Your task to perform on an android device: Empty the shopping cart on amazon.com. Add usb-a to the cart on amazon.com Image 0: 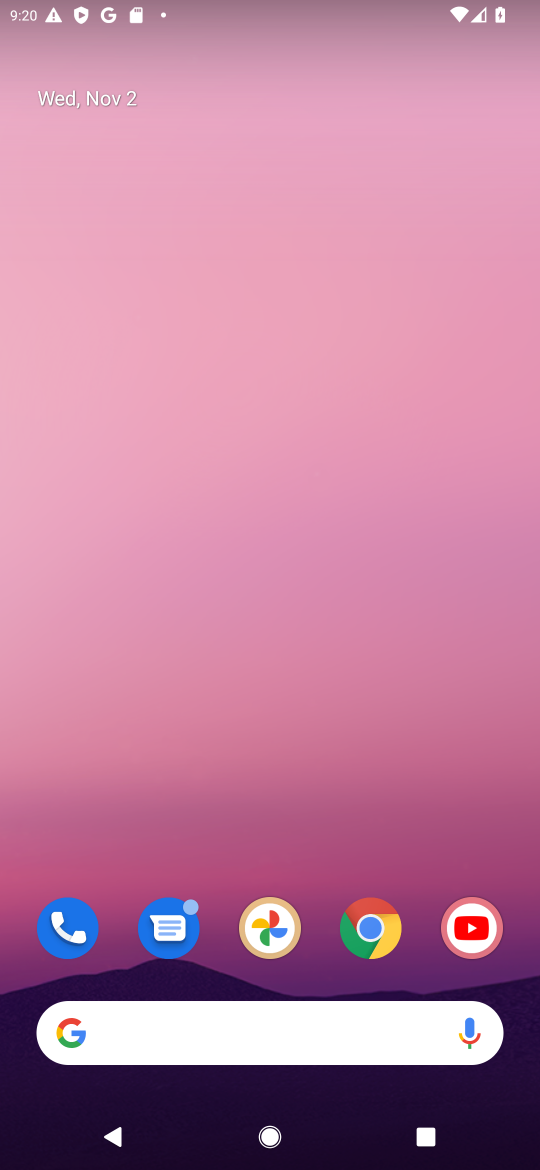
Step 0: click (379, 938)
Your task to perform on an android device: Empty the shopping cart on amazon.com. Add usb-a to the cart on amazon.com Image 1: 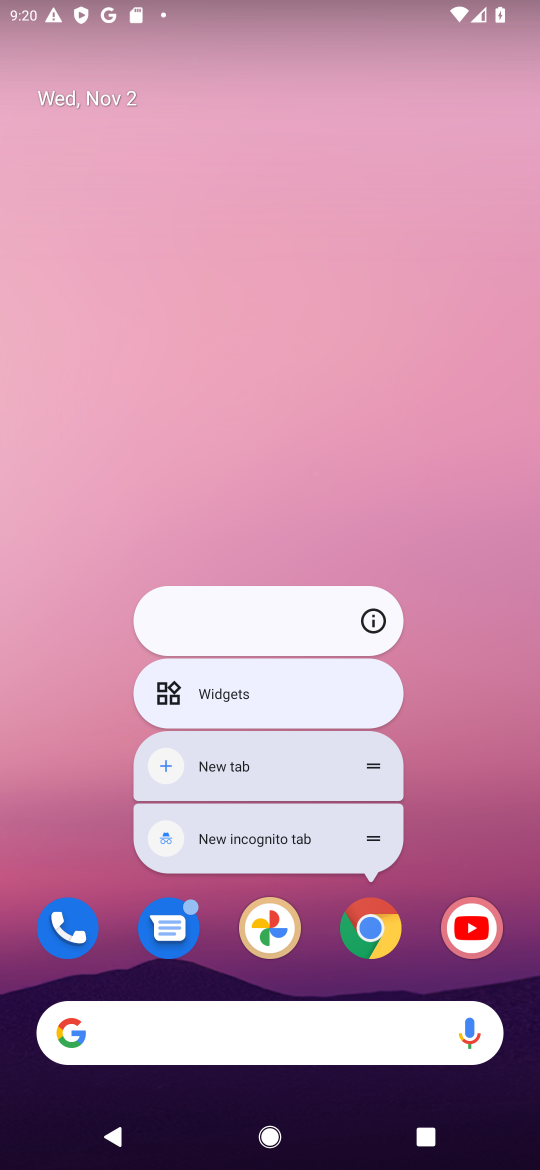
Step 1: click (373, 931)
Your task to perform on an android device: Empty the shopping cart on amazon.com. Add usb-a to the cart on amazon.com Image 2: 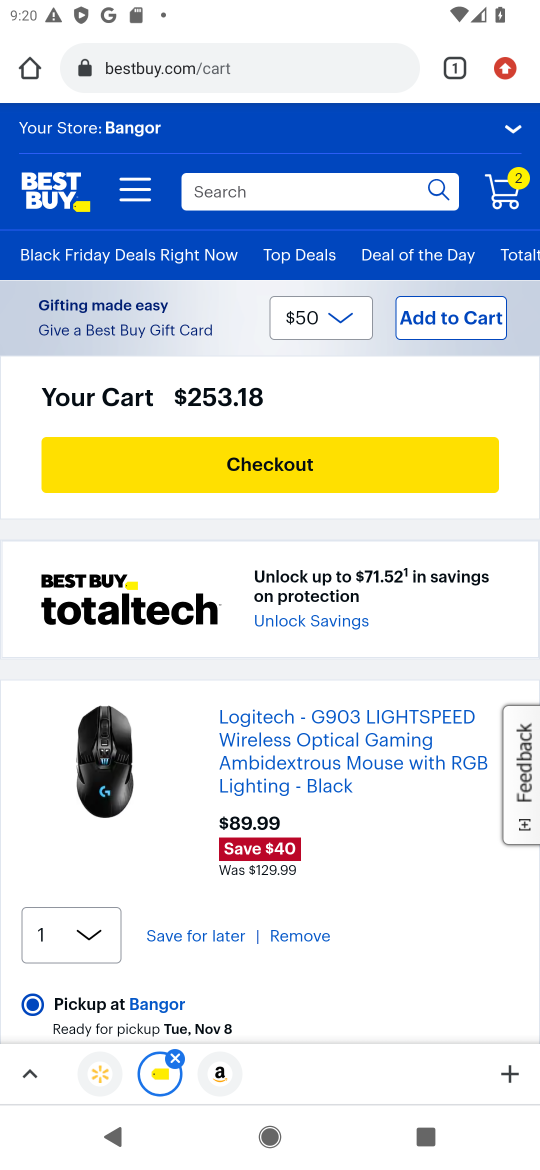
Step 2: click (220, 63)
Your task to perform on an android device: Empty the shopping cart on amazon.com. Add usb-a to the cart on amazon.com Image 3: 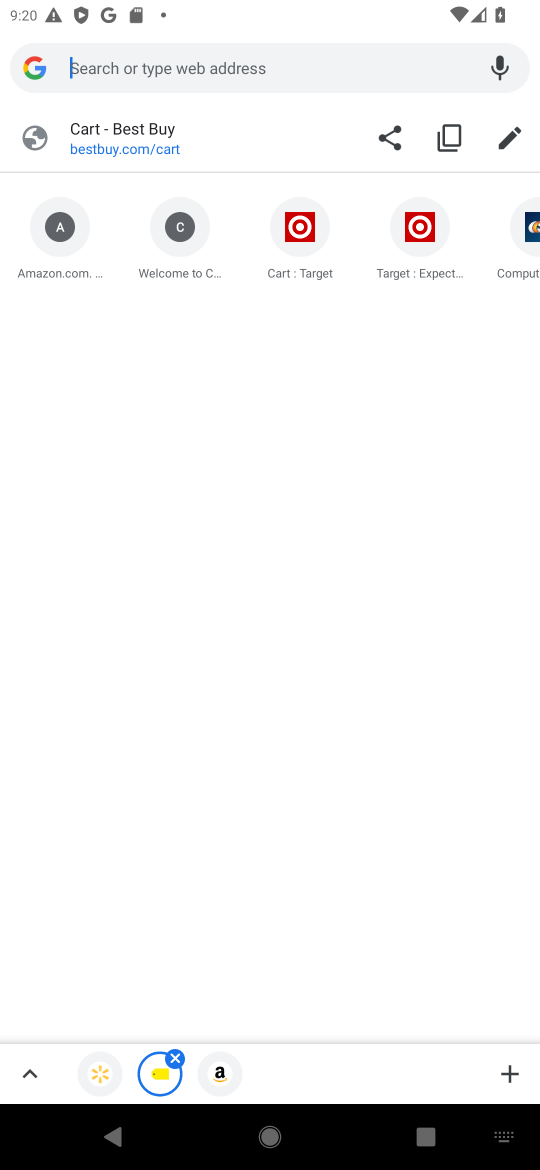
Step 3: type "amazon.com"
Your task to perform on an android device: Empty the shopping cart on amazon.com. Add usb-a to the cart on amazon.com Image 4: 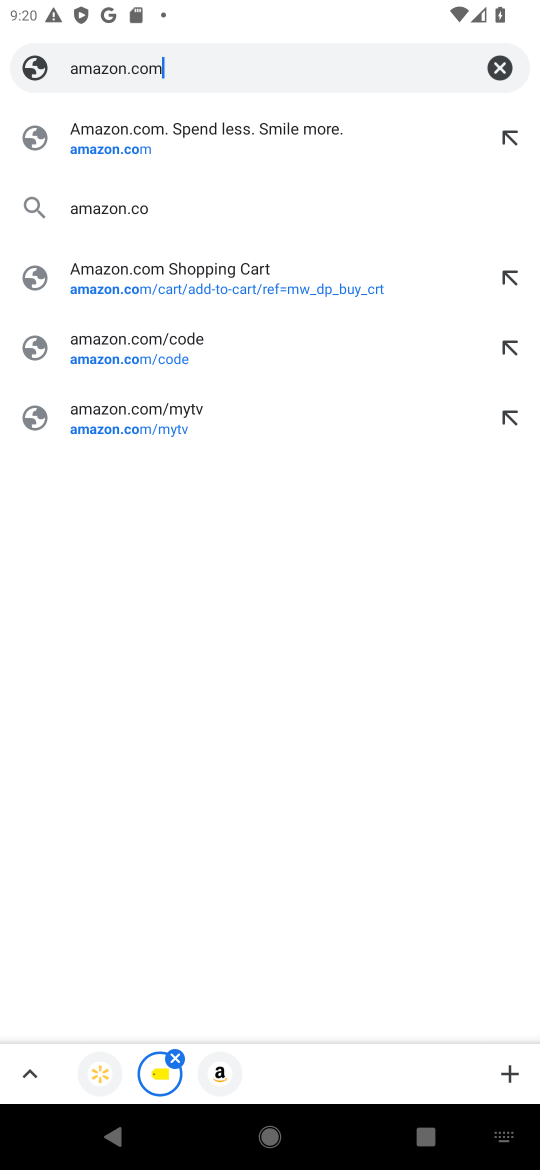
Step 4: type ""
Your task to perform on an android device: Empty the shopping cart on amazon.com. Add usb-a to the cart on amazon.com Image 5: 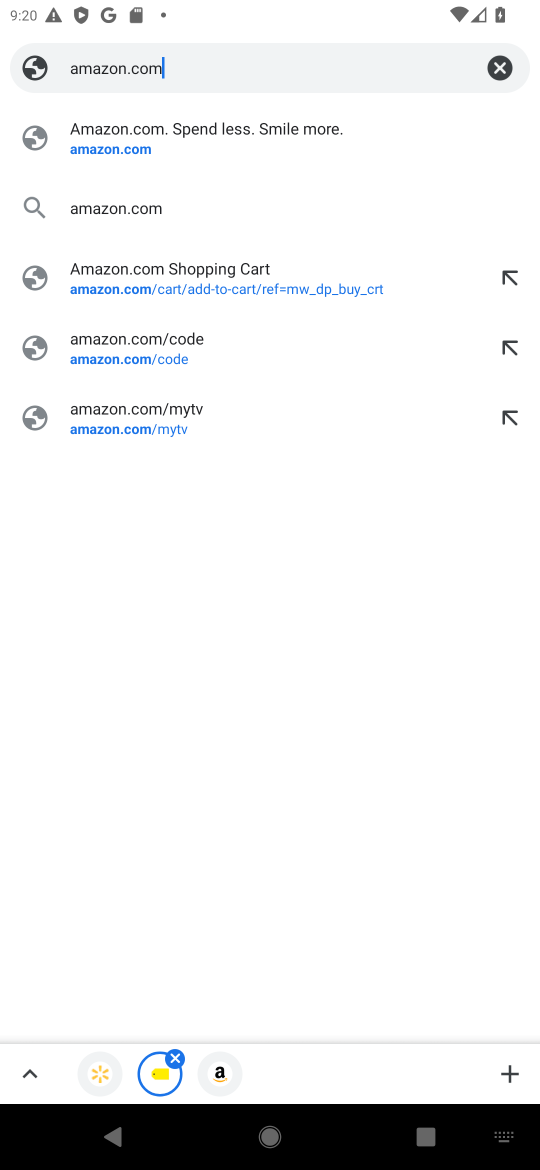
Step 5: click (233, 142)
Your task to perform on an android device: Empty the shopping cart on amazon.com. Add usb-a to the cart on amazon.com Image 6: 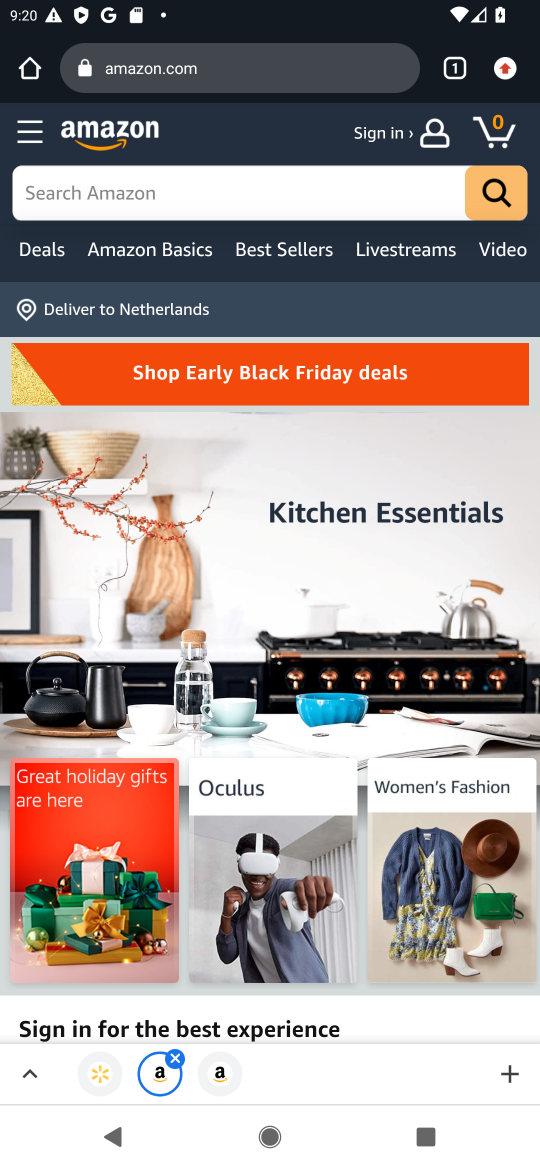
Step 6: click (314, 222)
Your task to perform on an android device: Empty the shopping cart on amazon.com. Add usb-a to the cart on amazon.com Image 7: 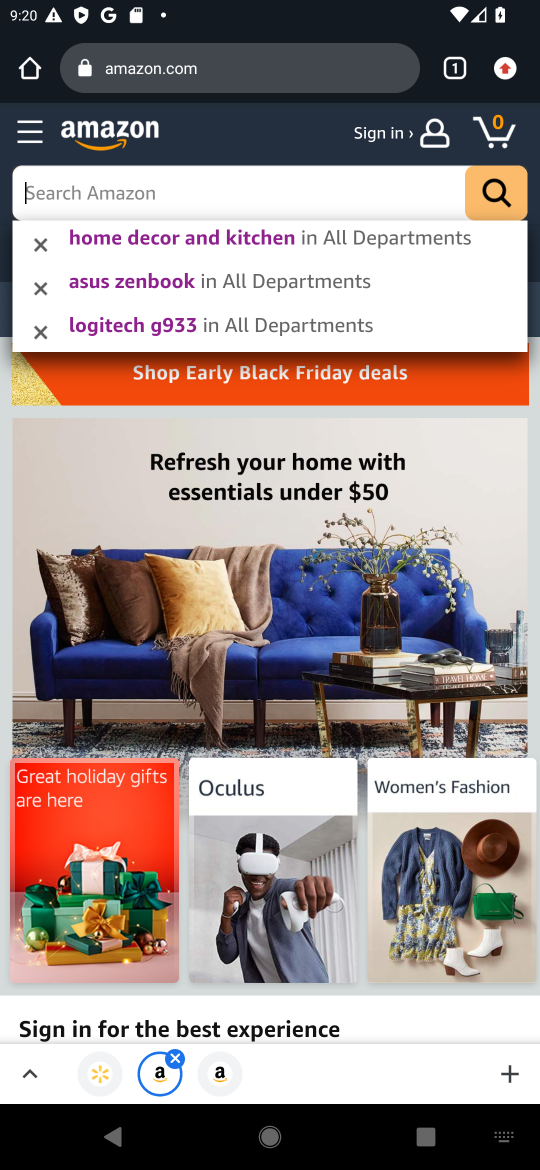
Step 7: type "usb-a "
Your task to perform on an android device: Empty the shopping cart on amazon.com. Add usb-a to the cart on amazon.com Image 8: 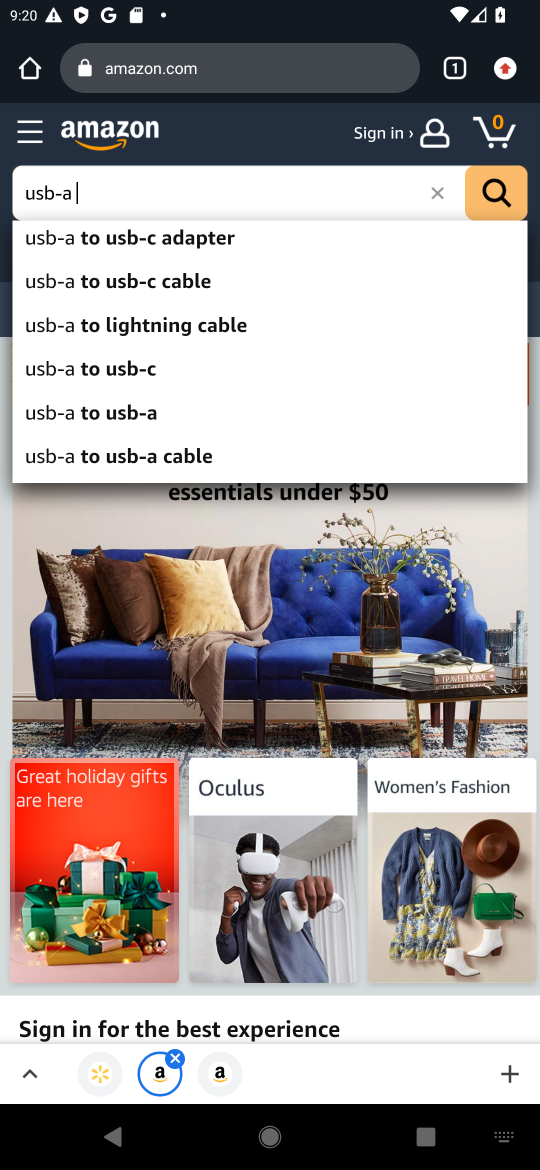
Step 8: press enter
Your task to perform on an android device: Empty the shopping cart on amazon.com. Add usb-a to the cart on amazon.com Image 9: 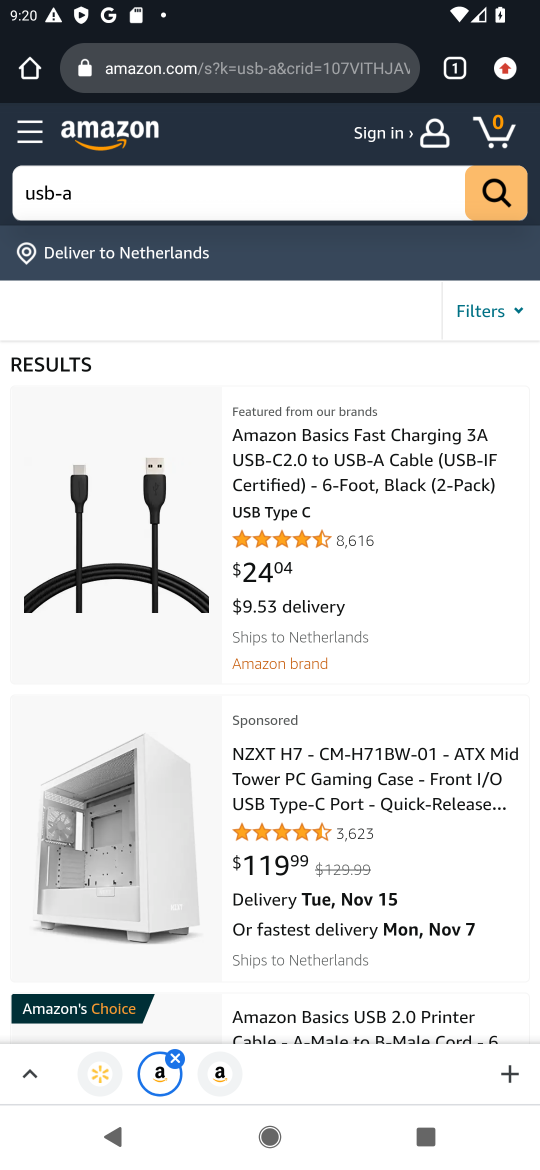
Step 9: click (373, 446)
Your task to perform on an android device: Empty the shopping cart on amazon.com. Add usb-a to the cart on amazon.com Image 10: 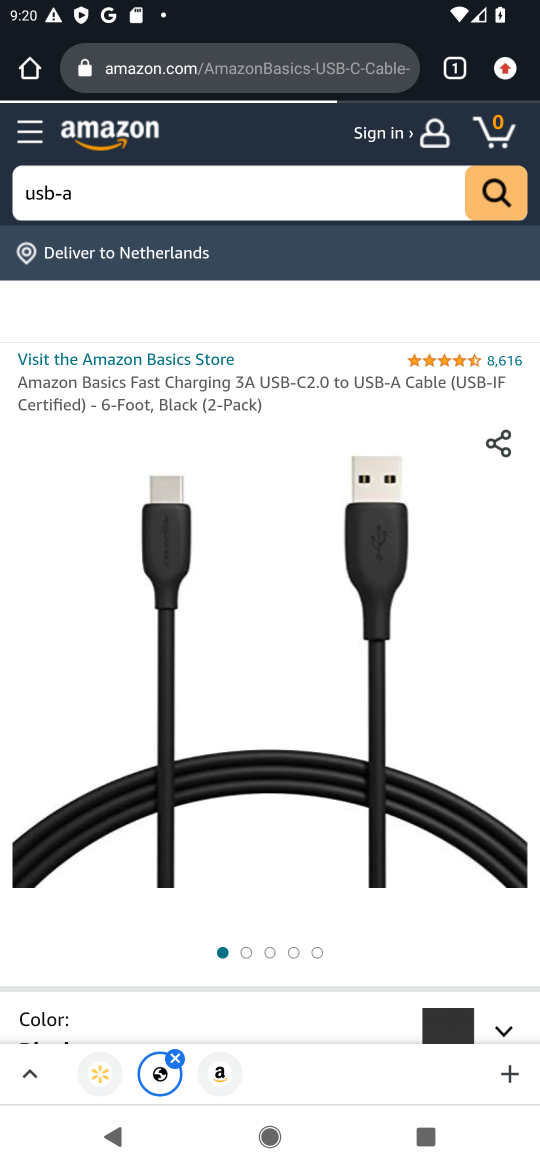
Step 10: drag from (383, 502) to (364, 428)
Your task to perform on an android device: Empty the shopping cart on amazon.com. Add usb-a to the cart on amazon.com Image 11: 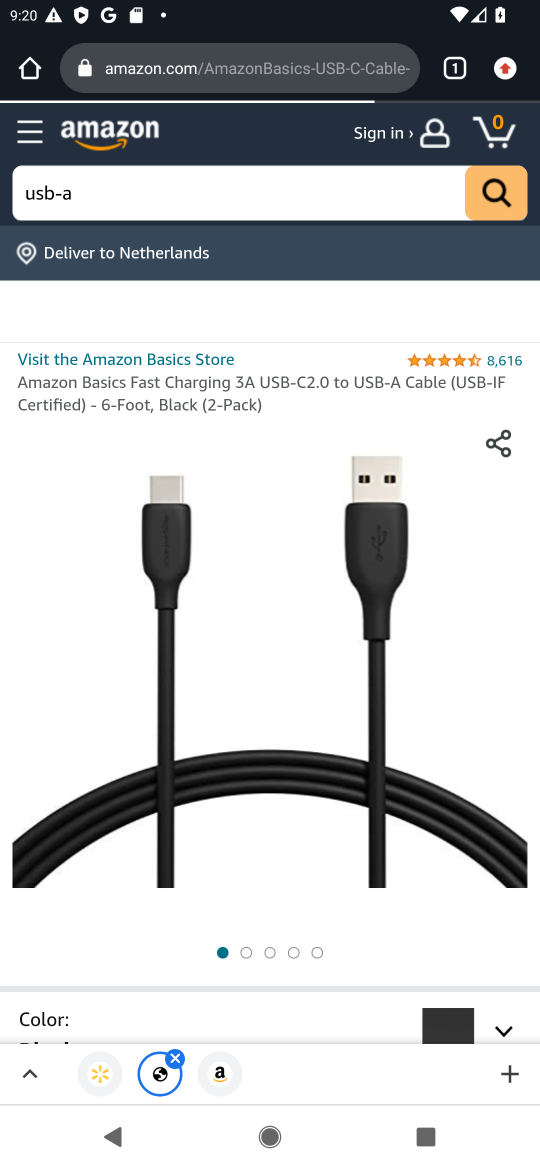
Step 11: drag from (333, 741) to (361, 560)
Your task to perform on an android device: Empty the shopping cart on amazon.com. Add usb-a to the cart on amazon.com Image 12: 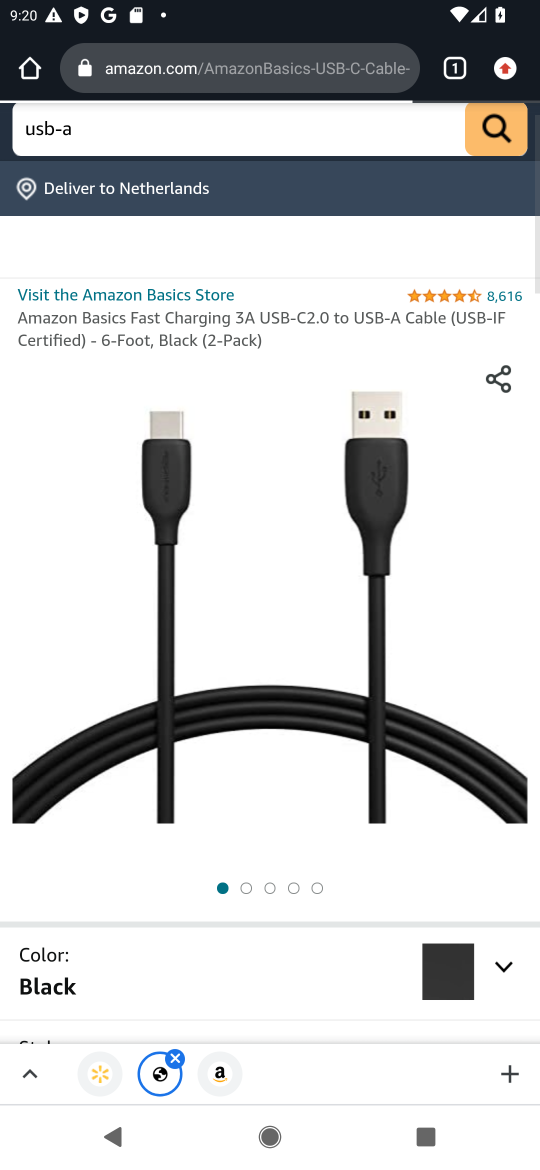
Step 12: drag from (358, 703) to (371, 531)
Your task to perform on an android device: Empty the shopping cart on amazon.com. Add usb-a to the cart on amazon.com Image 13: 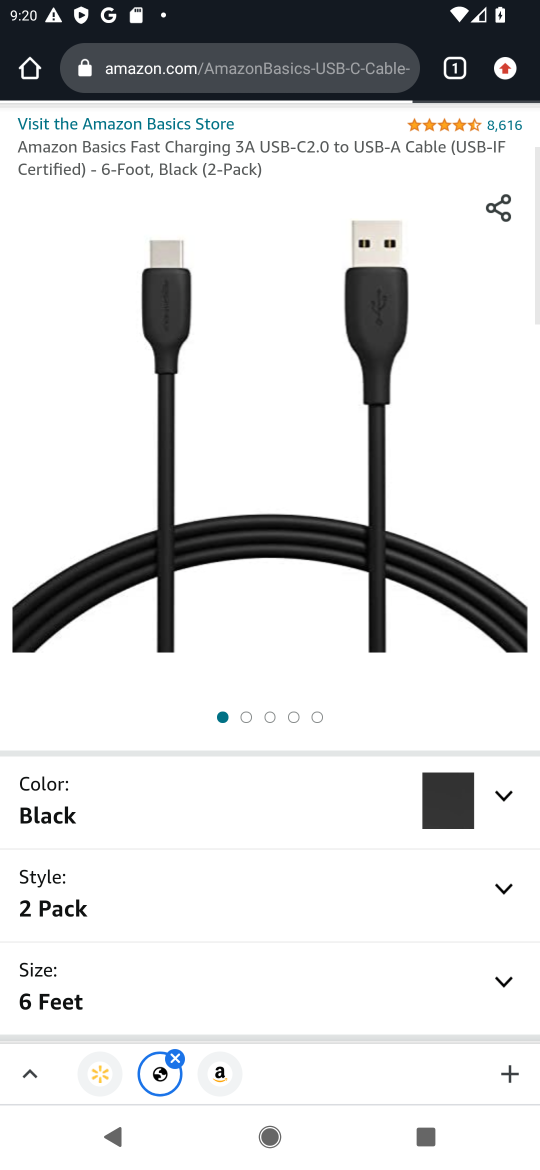
Step 13: drag from (370, 747) to (412, 505)
Your task to perform on an android device: Empty the shopping cart on amazon.com. Add usb-a to the cart on amazon.com Image 14: 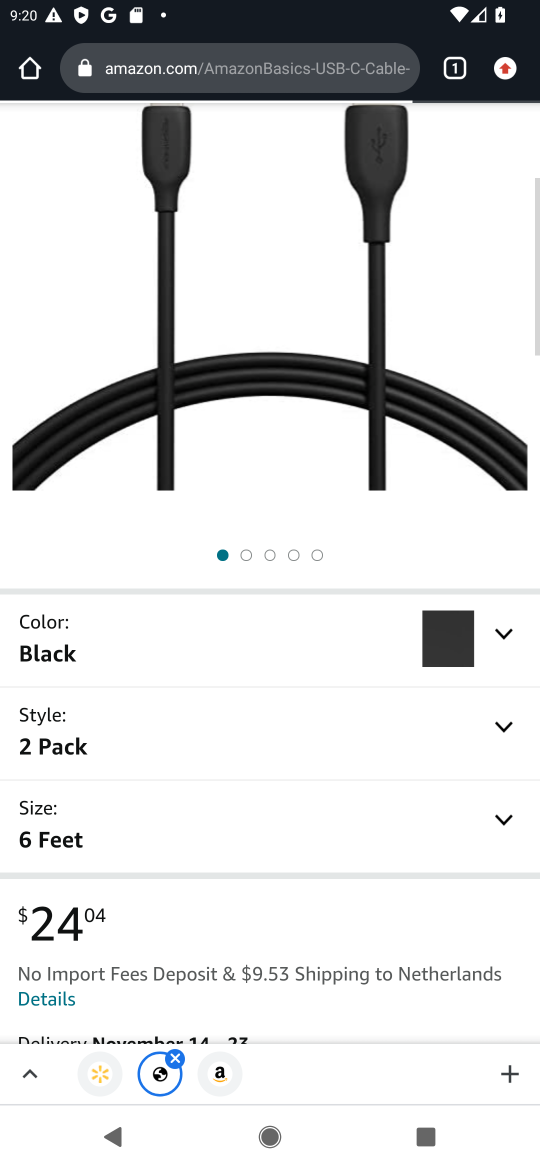
Step 14: click (410, 592)
Your task to perform on an android device: Empty the shopping cart on amazon.com. Add usb-a to the cart on amazon.com Image 15: 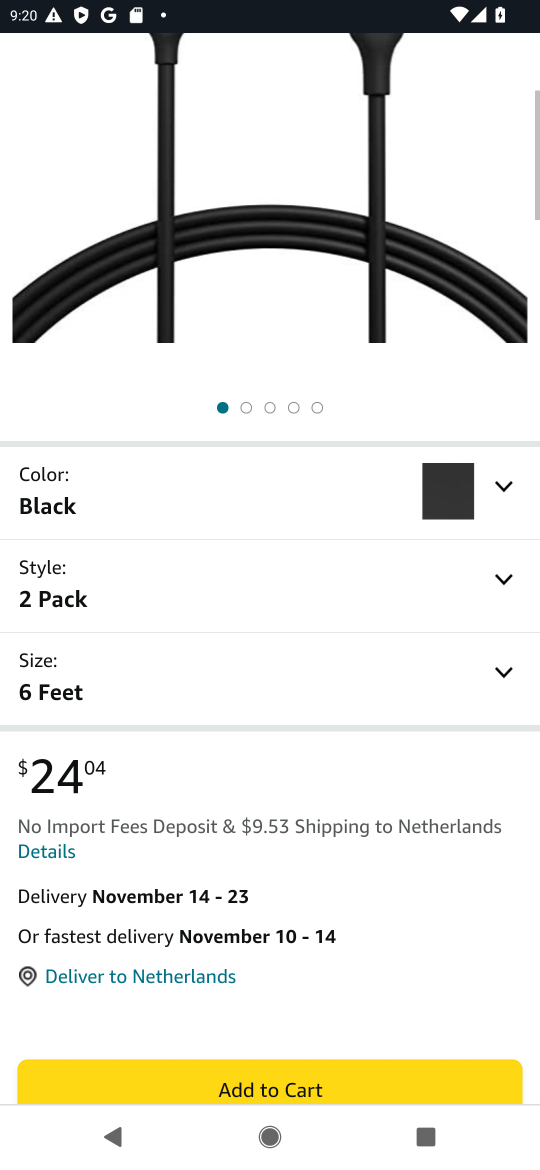
Step 15: drag from (382, 860) to (402, 601)
Your task to perform on an android device: Empty the shopping cart on amazon.com. Add usb-a to the cart on amazon.com Image 16: 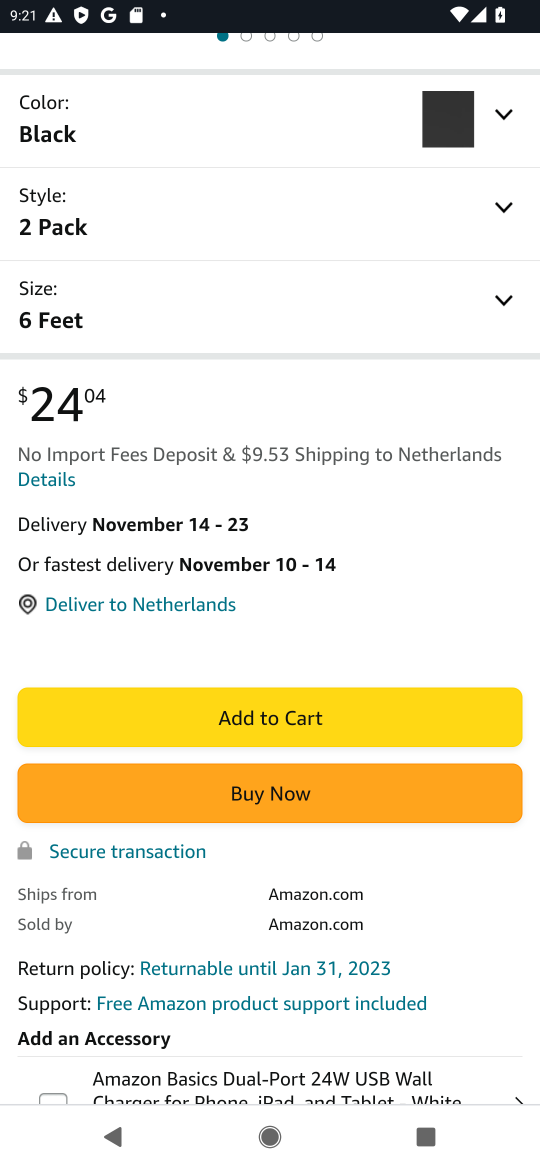
Step 16: click (346, 731)
Your task to perform on an android device: Empty the shopping cart on amazon.com. Add usb-a to the cart on amazon.com Image 17: 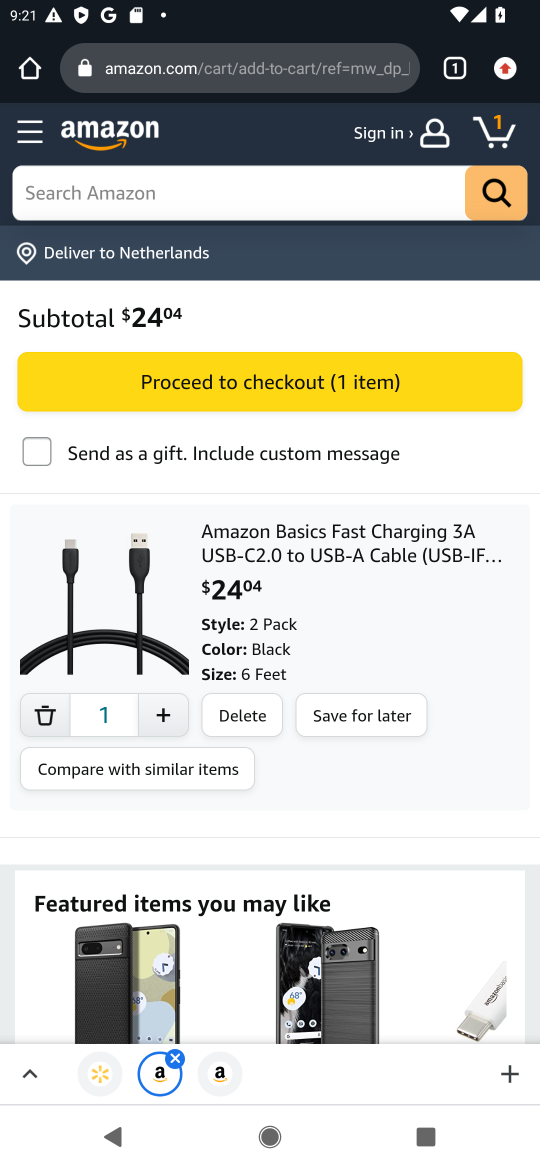
Step 17: click (327, 369)
Your task to perform on an android device: Empty the shopping cart on amazon.com. Add usb-a to the cart on amazon.com Image 18: 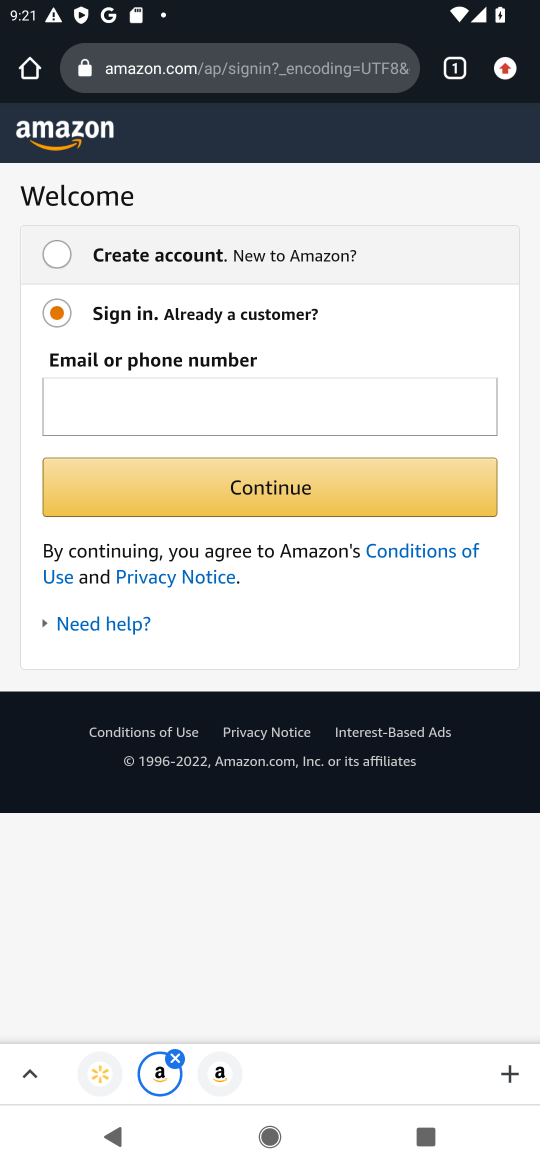
Step 18: press back button
Your task to perform on an android device: Empty the shopping cart on amazon.com. Add usb-a to the cart on amazon.com Image 19: 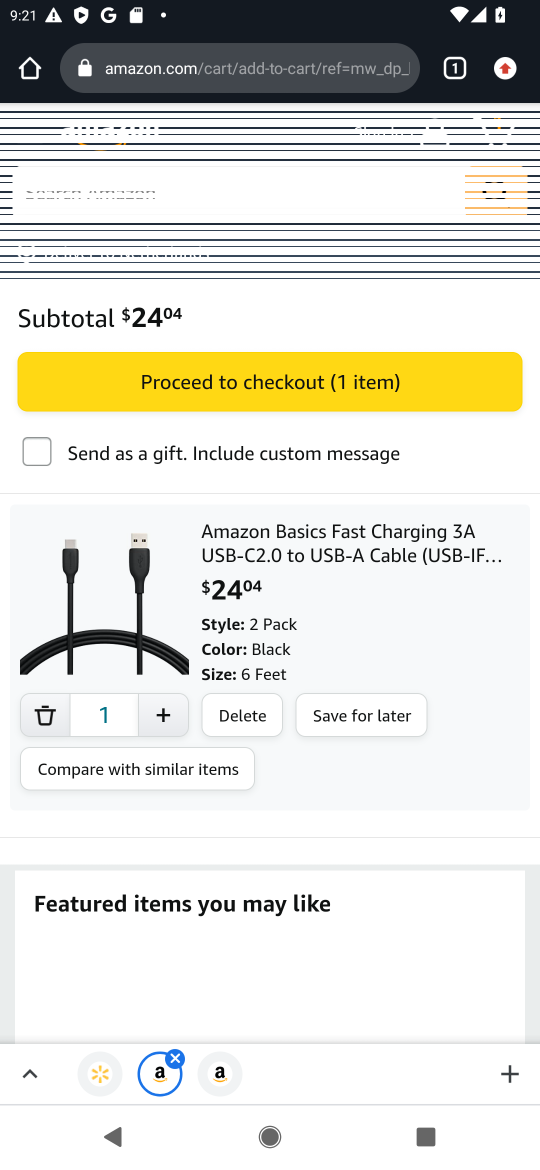
Step 19: click (318, 398)
Your task to perform on an android device: Empty the shopping cart on amazon.com. Add usb-a to the cart on amazon.com Image 20: 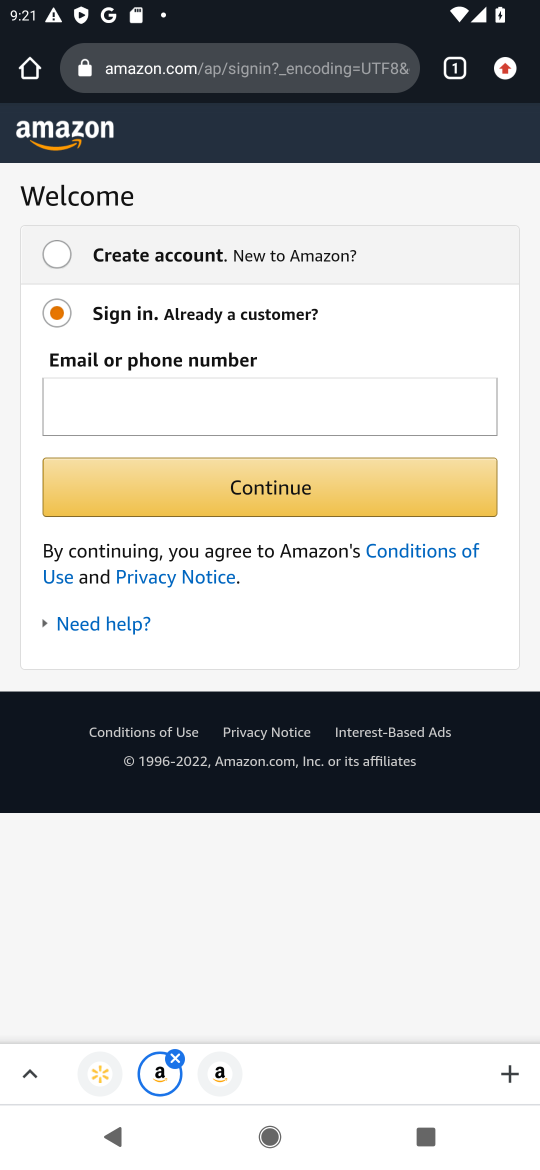
Step 20: press back button
Your task to perform on an android device: Empty the shopping cart on amazon.com. Add usb-a to the cart on amazon.com Image 21: 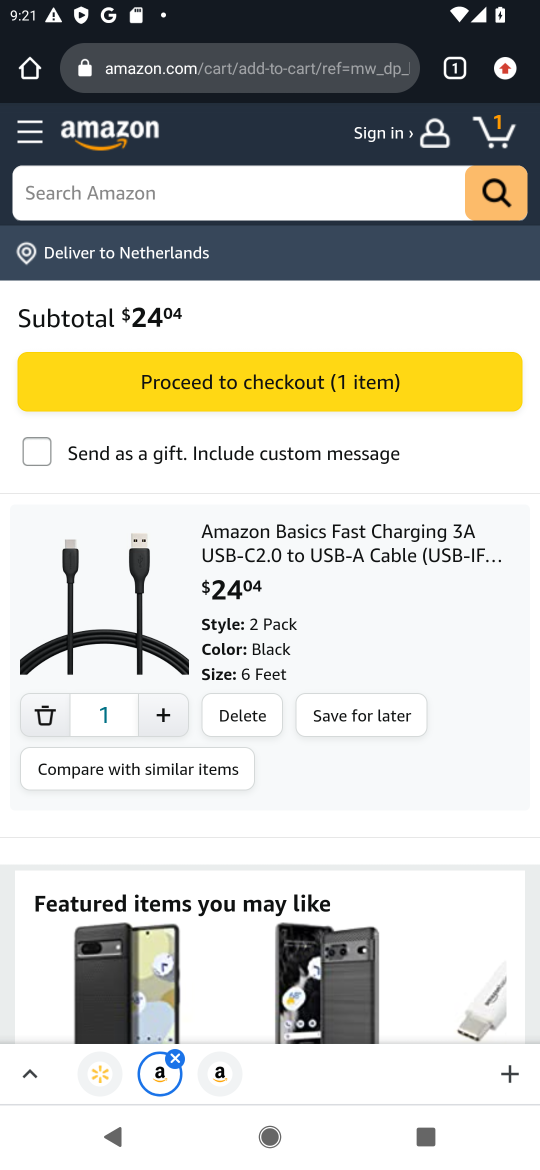
Step 21: click (495, 127)
Your task to perform on an android device: Empty the shopping cart on amazon.com. Add usb-a to the cart on amazon.com Image 22: 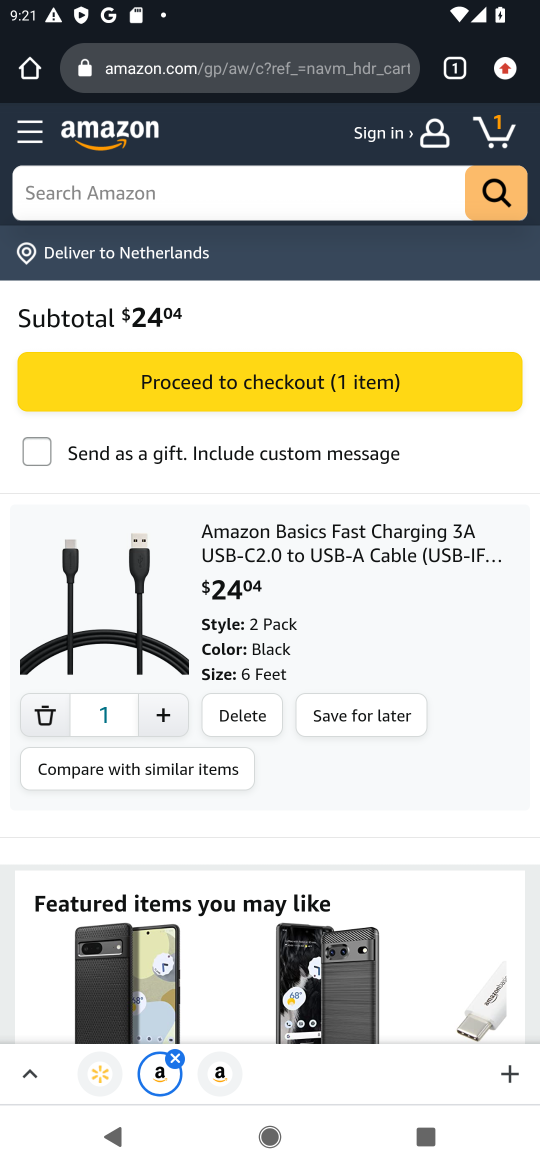
Step 22: click (495, 125)
Your task to perform on an android device: Empty the shopping cart on amazon.com. Add usb-a to the cart on amazon.com Image 23: 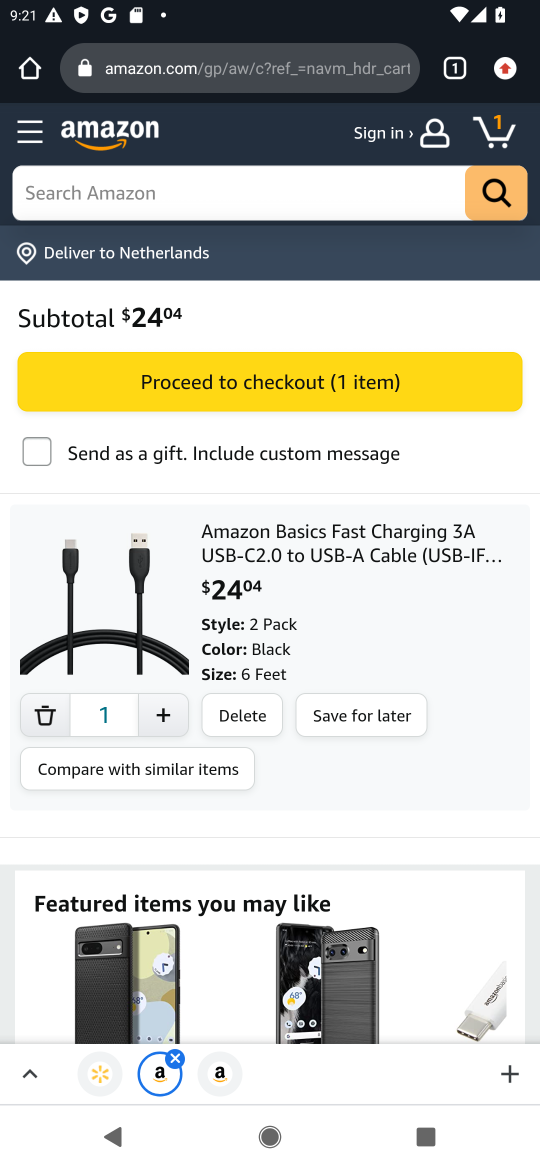
Step 23: click (349, 414)
Your task to perform on an android device: Empty the shopping cart on amazon.com. Add usb-a to the cart on amazon.com Image 24: 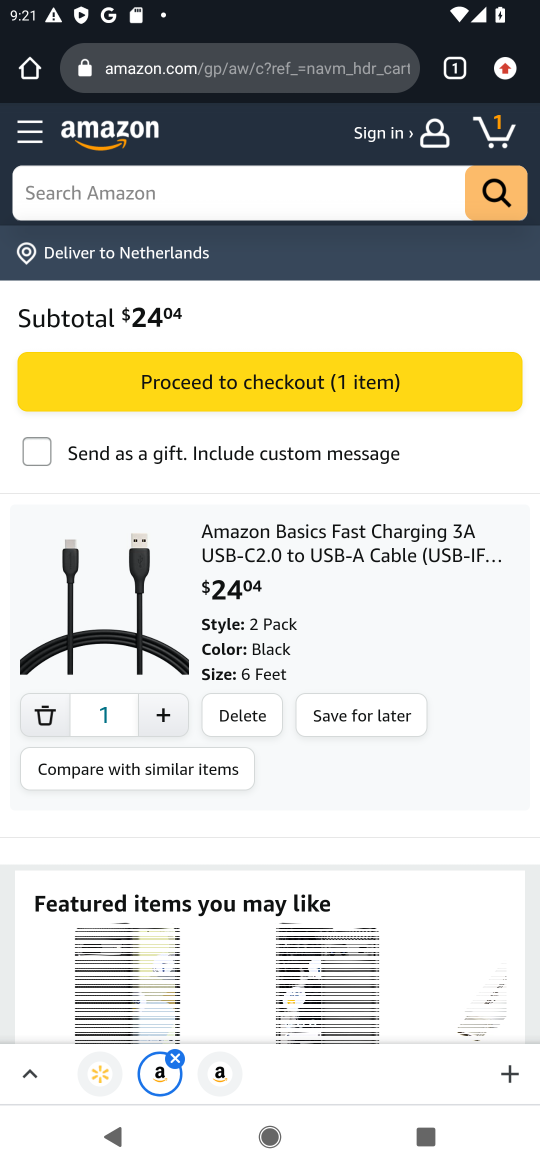
Step 24: click (346, 390)
Your task to perform on an android device: Empty the shopping cart on amazon.com. Add usb-a to the cart on amazon.com Image 25: 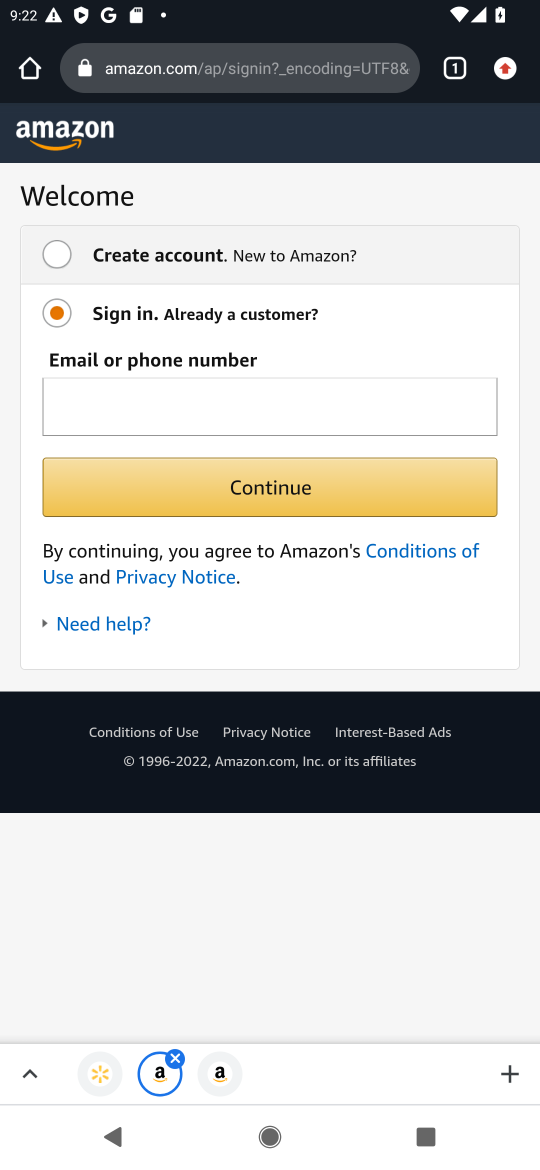
Step 25: task complete